Your task to perform on an android device: turn on javascript in the chrome app Image 0: 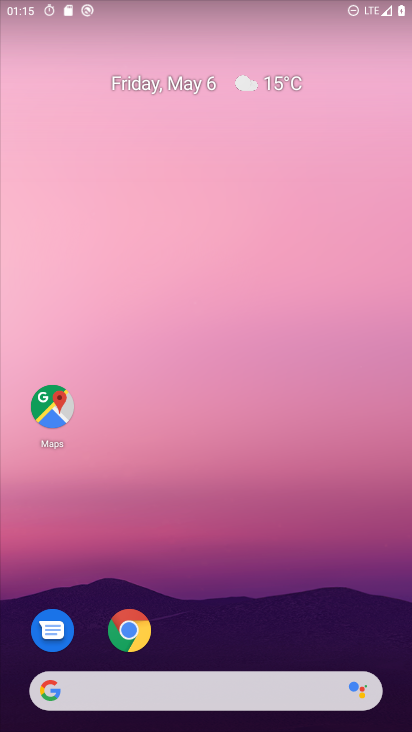
Step 0: drag from (266, 613) to (249, 83)
Your task to perform on an android device: turn on javascript in the chrome app Image 1: 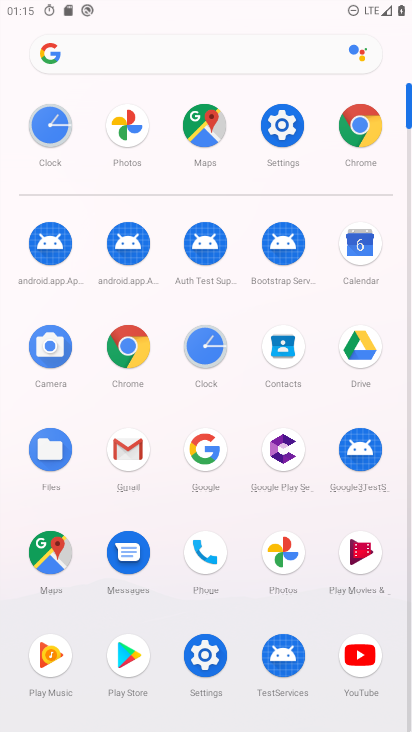
Step 1: click (126, 338)
Your task to perform on an android device: turn on javascript in the chrome app Image 2: 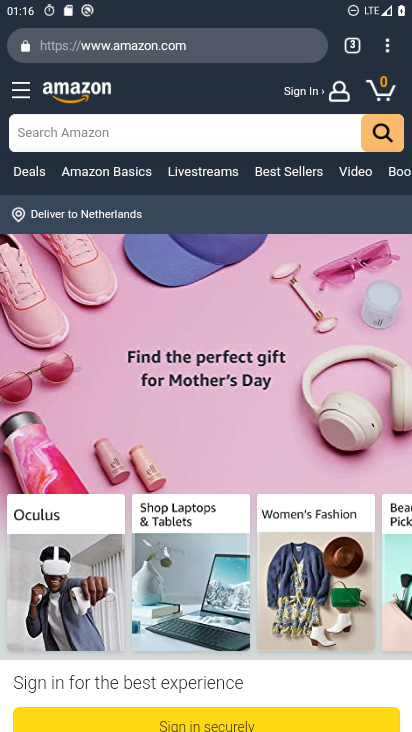
Step 2: drag from (386, 48) to (241, 608)
Your task to perform on an android device: turn on javascript in the chrome app Image 3: 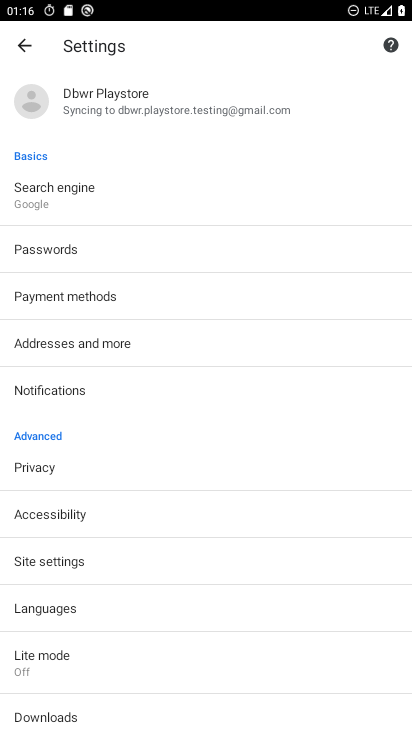
Step 3: click (92, 559)
Your task to perform on an android device: turn on javascript in the chrome app Image 4: 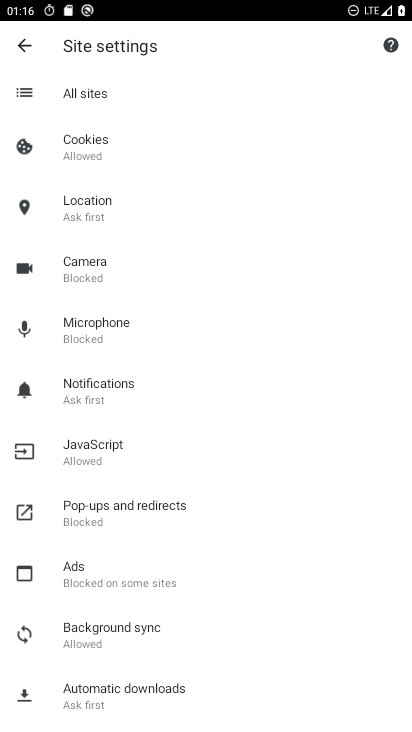
Step 4: click (108, 445)
Your task to perform on an android device: turn on javascript in the chrome app Image 5: 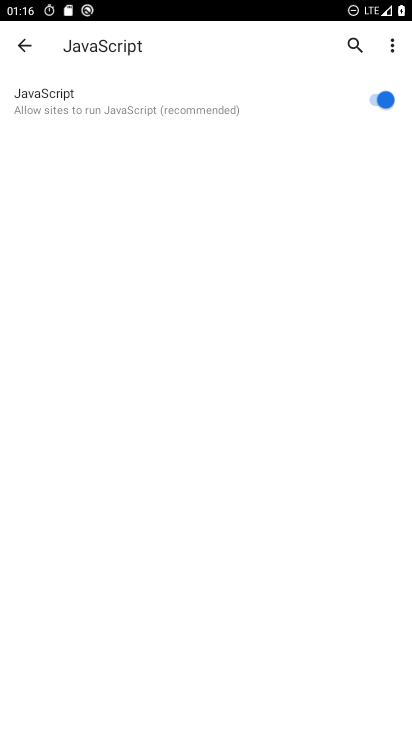
Step 5: task complete